Your task to perform on an android device: open sync settings in chrome Image 0: 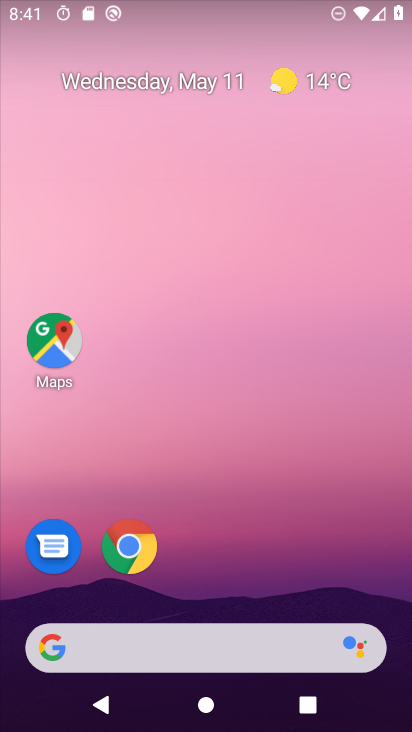
Step 0: click (126, 543)
Your task to perform on an android device: open sync settings in chrome Image 1: 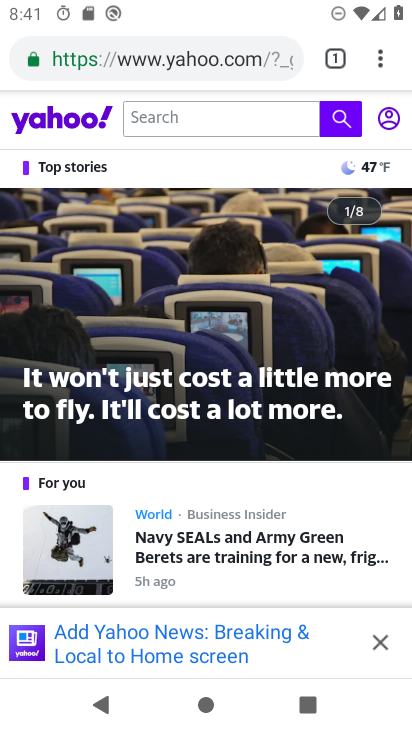
Step 1: click (390, 56)
Your task to perform on an android device: open sync settings in chrome Image 2: 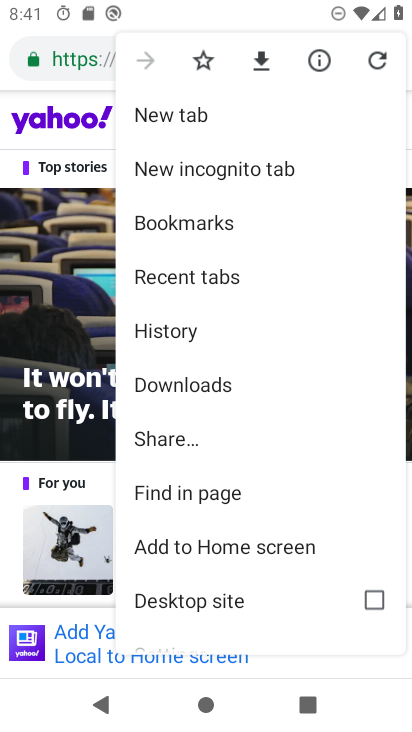
Step 2: drag from (248, 601) to (249, 168)
Your task to perform on an android device: open sync settings in chrome Image 3: 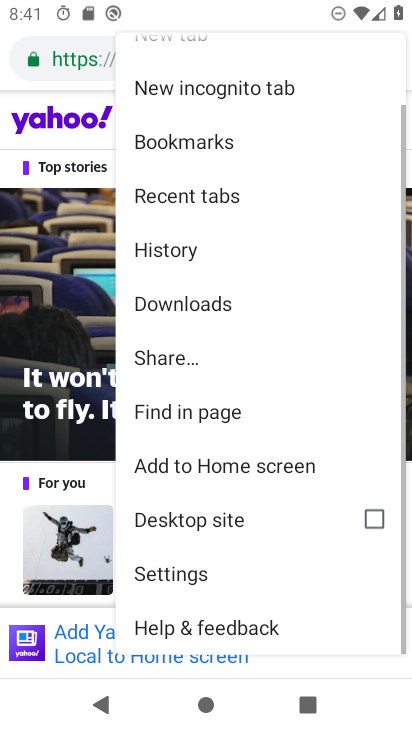
Step 3: click (201, 572)
Your task to perform on an android device: open sync settings in chrome Image 4: 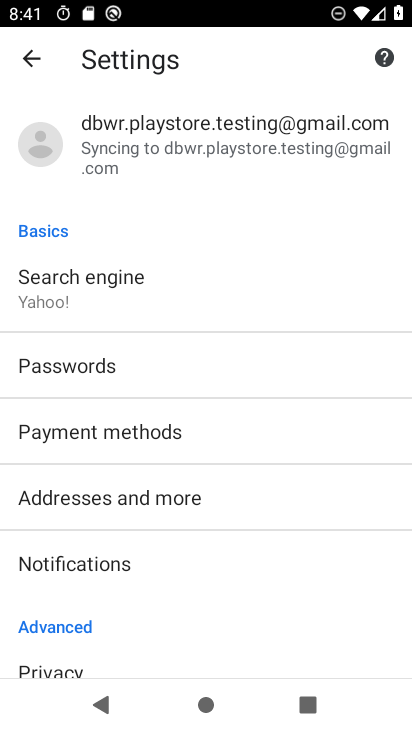
Step 4: click (187, 162)
Your task to perform on an android device: open sync settings in chrome Image 5: 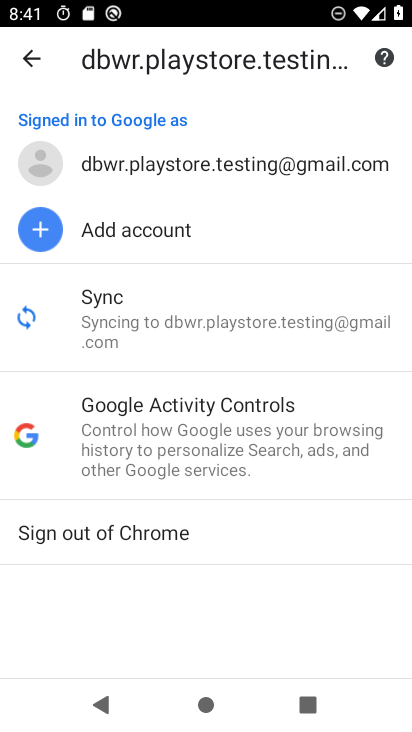
Step 5: click (164, 324)
Your task to perform on an android device: open sync settings in chrome Image 6: 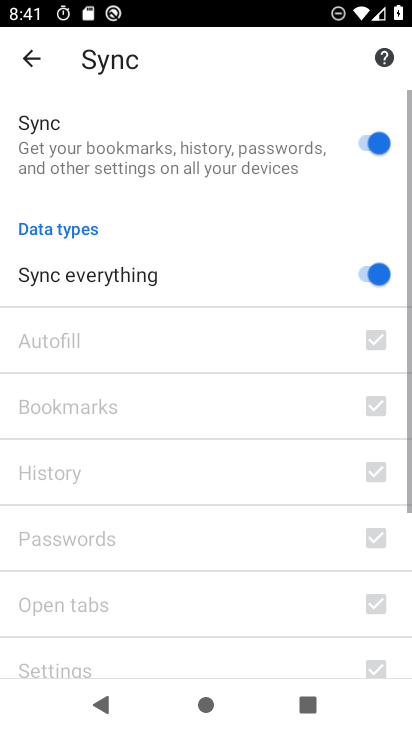
Step 6: task complete